Your task to perform on an android device: Go to battery settings Image 0: 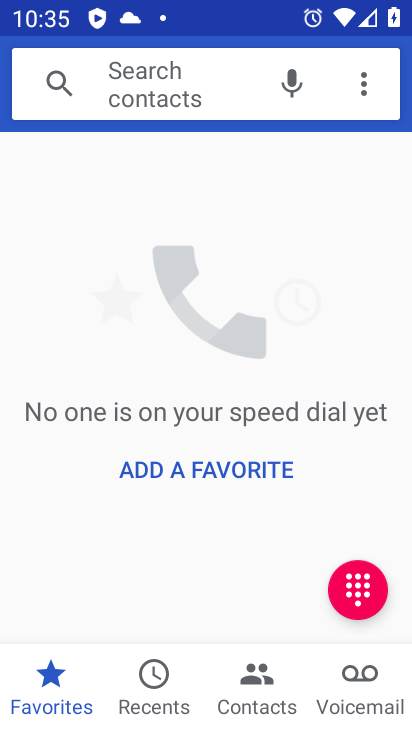
Step 0: press home button
Your task to perform on an android device: Go to battery settings Image 1: 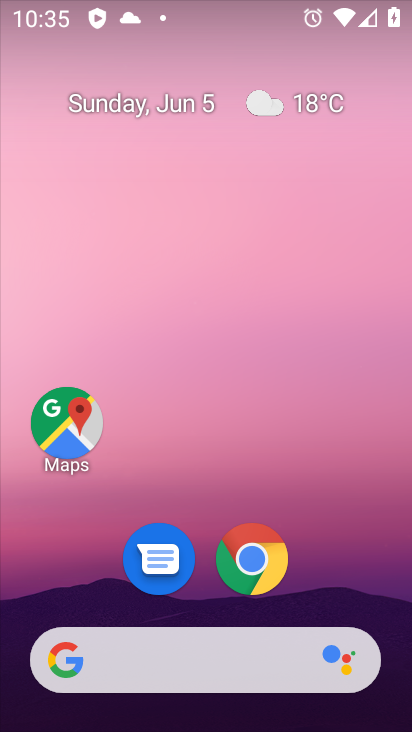
Step 1: drag from (394, 653) to (357, 104)
Your task to perform on an android device: Go to battery settings Image 2: 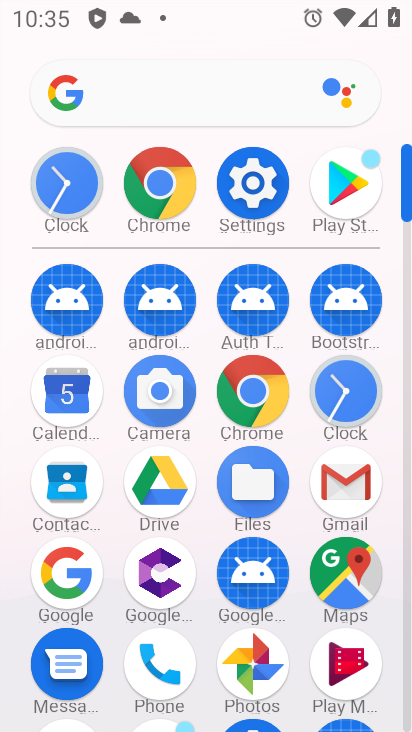
Step 2: click (273, 176)
Your task to perform on an android device: Go to battery settings Image 3: 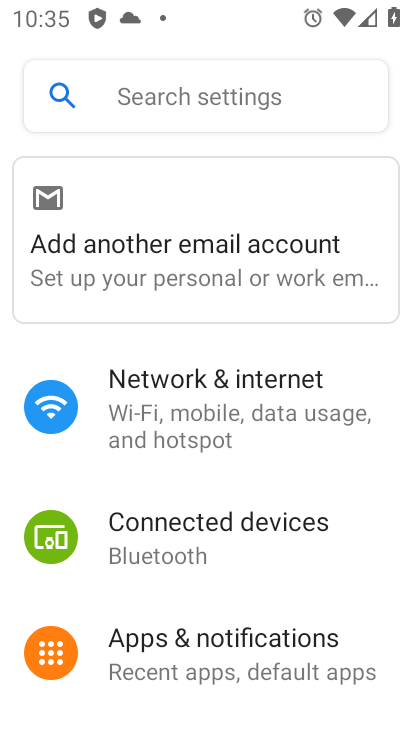
Step 3: drag from (223, 653) to (244, 189)
Your task to perform on an android device: Go to battery settings Image 4: 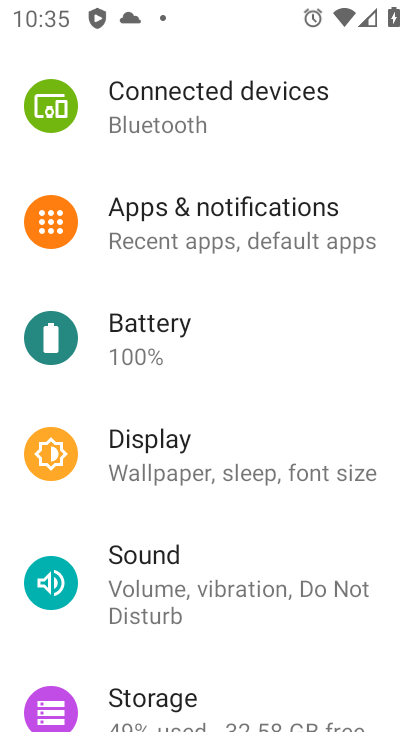
Step 4: click (150, 328)
Your task to perform on an android device: Go to battery settings Image 5: 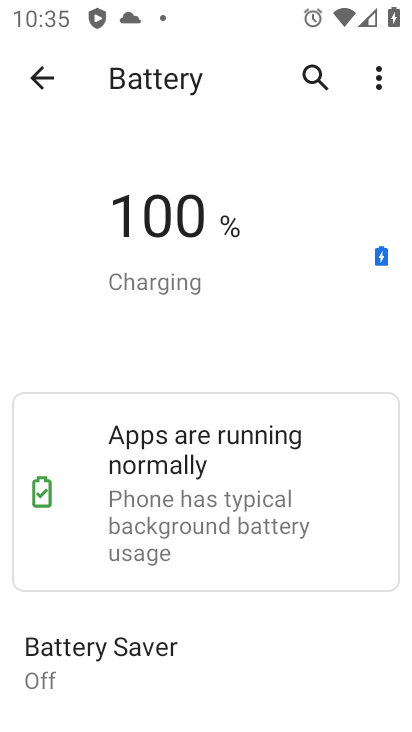
Step 5: task complete